Your task to perform on an android device: open the mobile data screen to see how much data has been used Image 0: 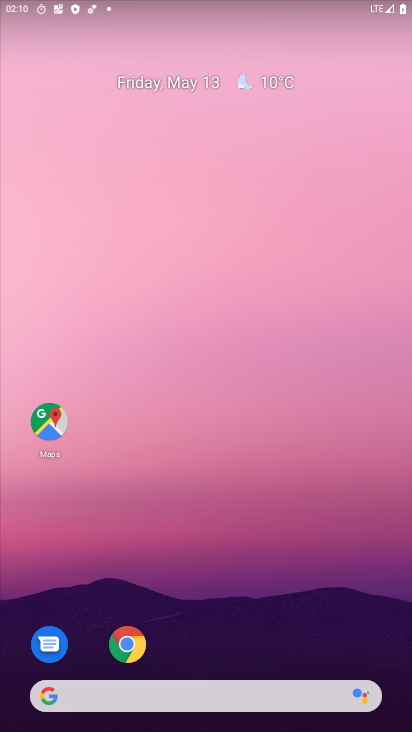
Step 0: drag from (243, 685) to (197, 0)
Your task to perform on an android device: open the mobile data screen to see how much data has been used Image 1: 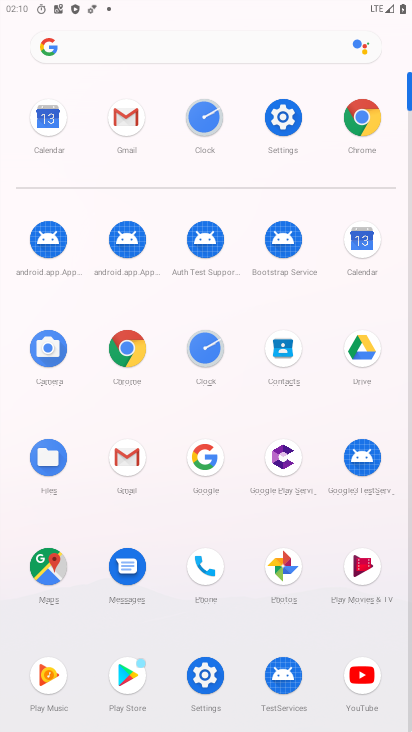
Step 1: click (278, 101)
Your task to perform on an android device: open the mobile data screen to see how much data has been used Image 2: 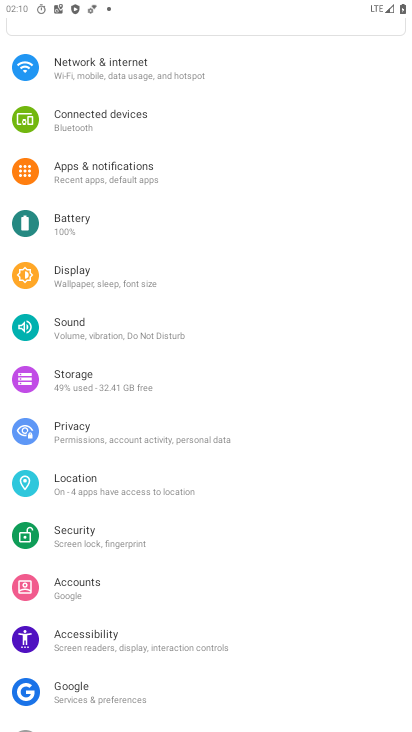
Step 2: click (170, 70)
Your task to perform on an android device: open the mobile data screen to see how much data has been used Image 3: 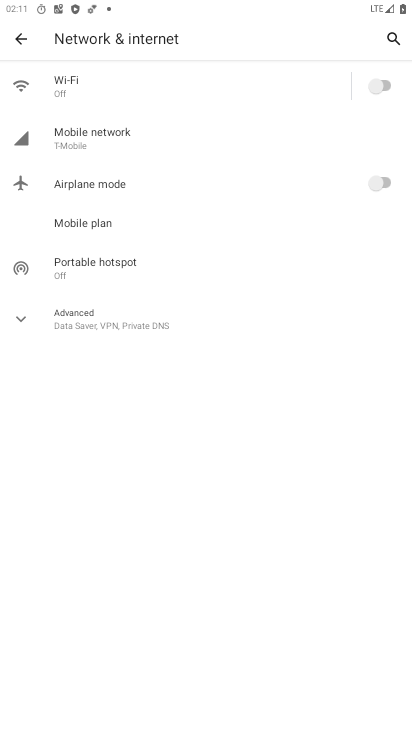
Step 3: click (113, 140)
Your task to perform on an android device: open the mobile data screen to see how much data has been used Image 4: 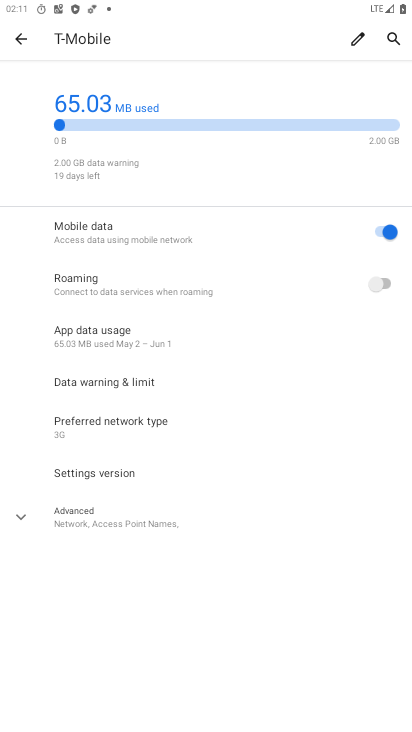
Step 4: press home button
Your task to perform on an android device: open the mobile data screen to see how much data has been used Image 5: 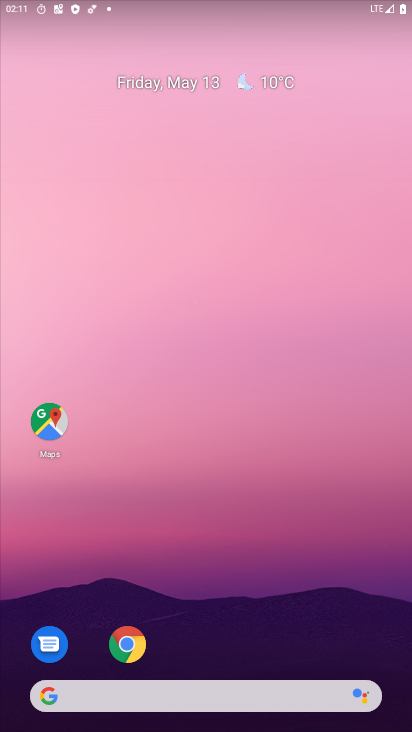
Step 5: drag from (152, 676) to (163, 13)
Your task to perform on an android device: open the mobile data screen to see how much data has been used Image 6: 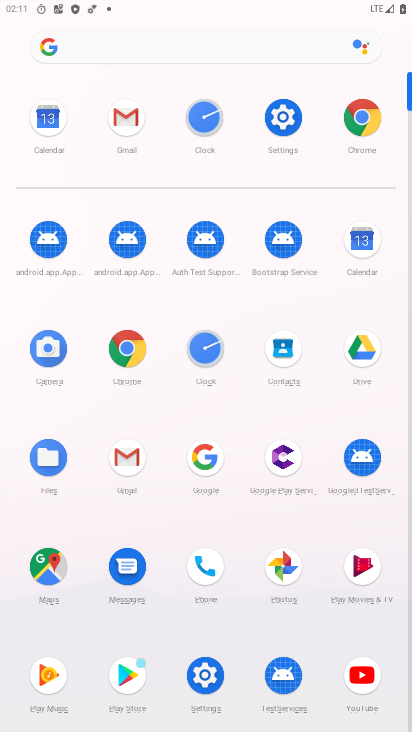
Step 6: click (280, 117)
Your task to perform on an android device: open the mobile data screen to see how much data has been used Image 7: 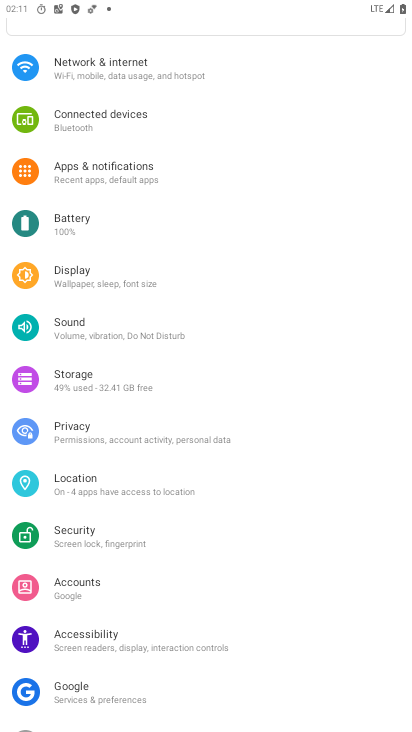
Step 7: click (132, 79)
Your task to perform on an android device: open the mobile data screen to see how much data has been used Image 8: 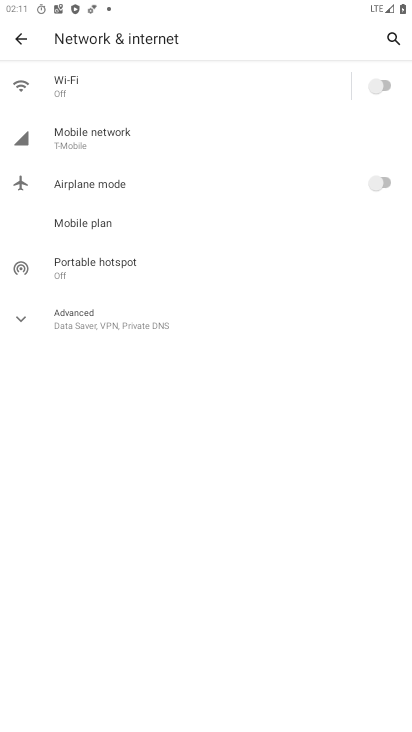
Step 8: click (120, 136)
Your task to perform on an android device: open the mobile data screen to see how much data has been used Image 9: 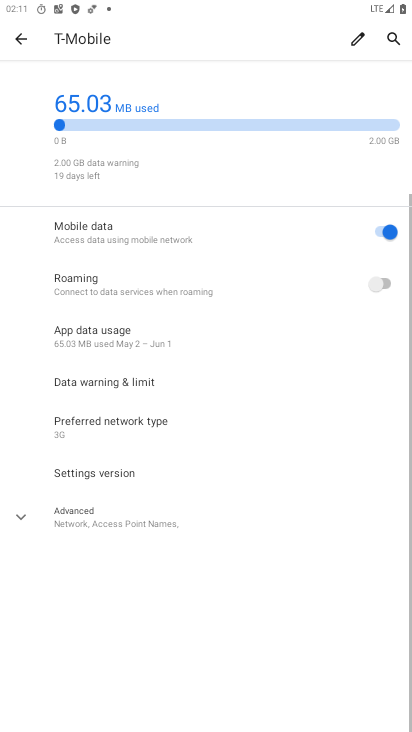
Step 9: task complete